Your task to perform on an android device: Open notification settings Image 0: 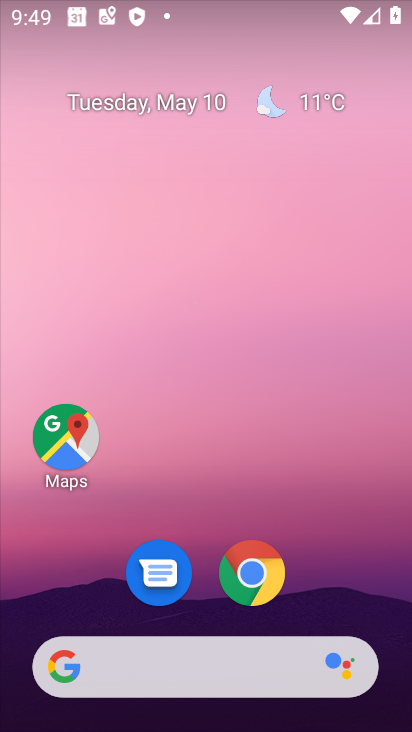
Step 0: drag from (364, 529) to (333, 10)
Your task to perform on an android device: Open notification settings Image 1: 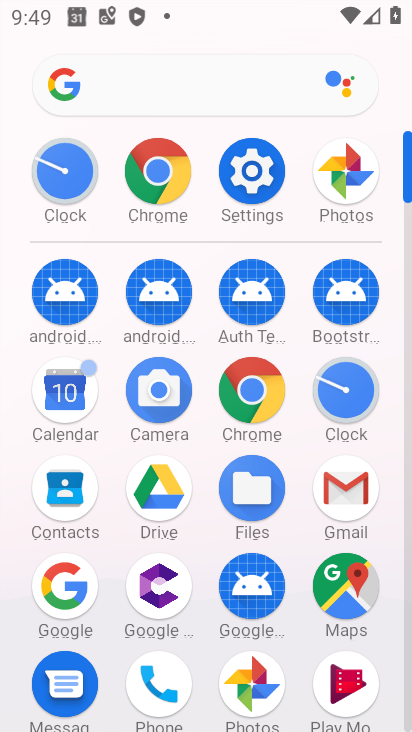
Step 1: click (247, 170)
Your task to perform on an android device: Open notification settings Image 2: 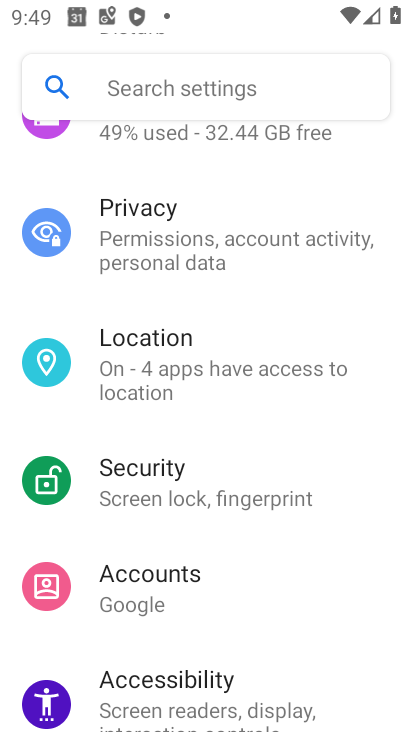
Step 2: drag from (365, 228) to (390, 533)
Your task to perform on an android device: Open notification settings Image 3: 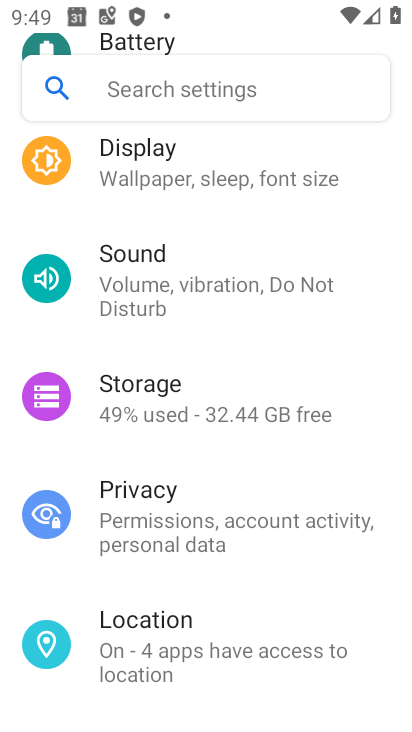
Step 3: drag from (407, 264) to (349, 573)
Your task to perform on an android device: Open notification settings Image 4: 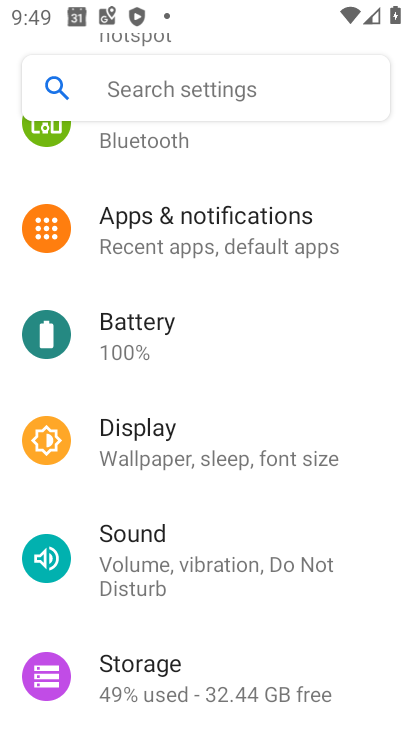
Step 4: click (172, 234)
Your task to perform on an android device: Open notification settings Image 5: 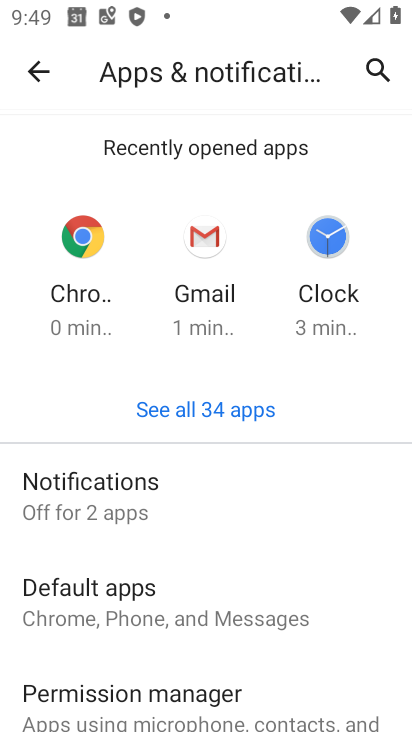
Step 5: task complete